Your task to perform on an android device: Toggle the flashlight Image 0: 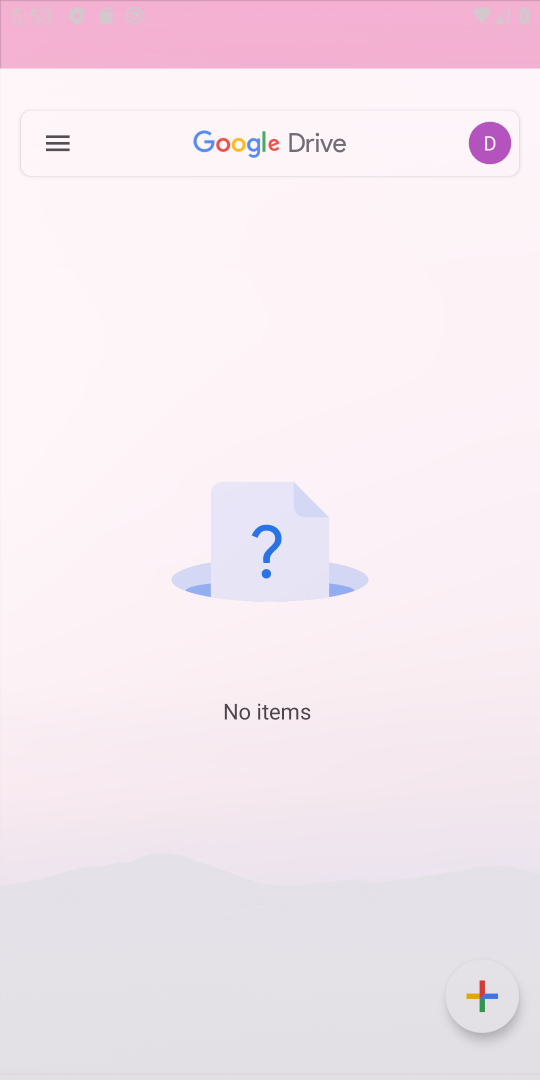
Step 0: press home button
Your task to perform on an android device: Toggle the flashlight Image 1: 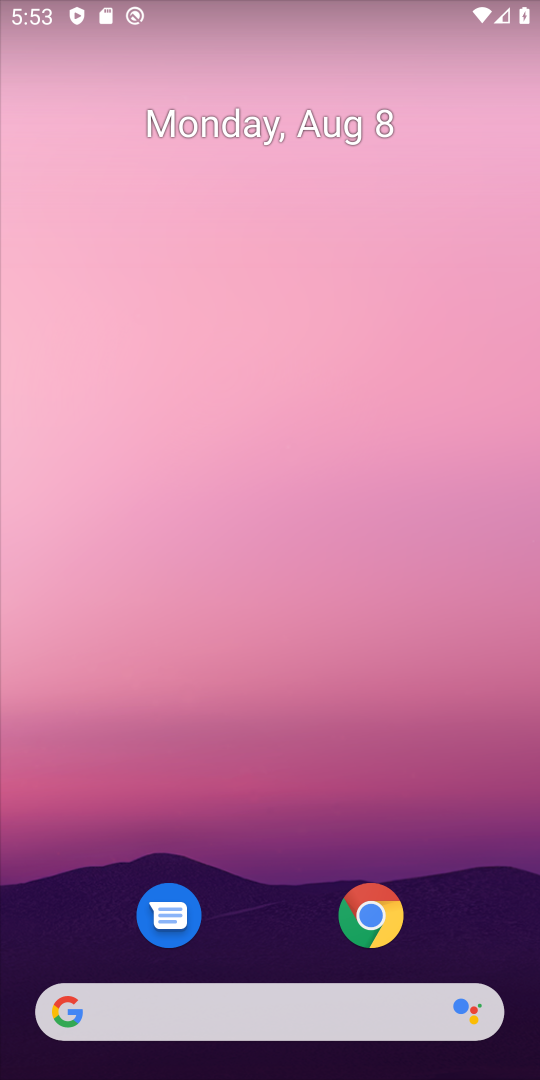
Step 1: drag from (280, 819) to (188, 72)
Your task to perform on an android device: Toggle the flashlight Image 2: 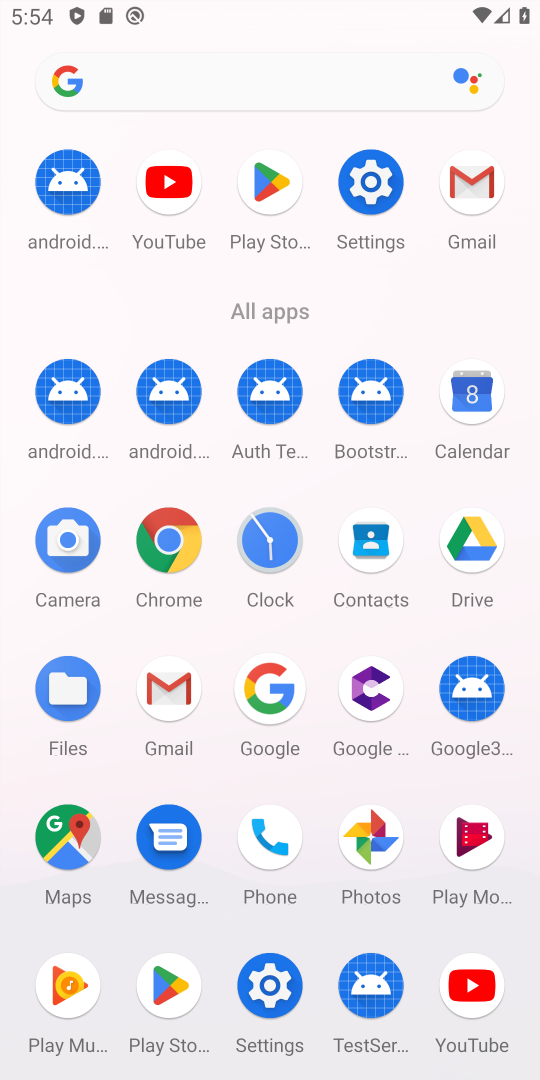
Step 2: click (377, 185)
Your task to perform on an android device: Toggle the flashlight Image 3: 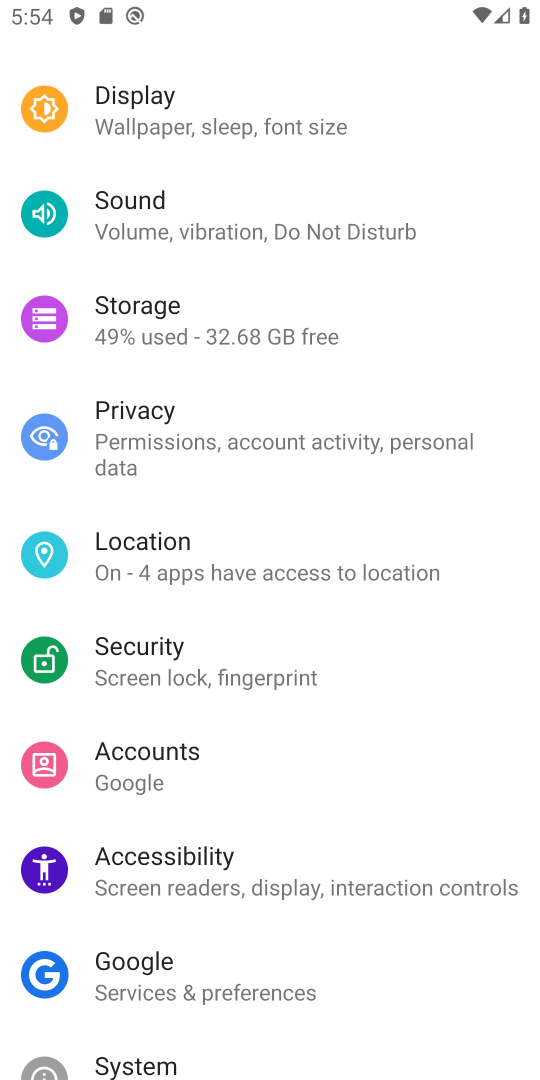
Step 3: drag from (307, 288) to (307, 693)
Your task to perform on an android device: Toggle the flashlight Image 4: 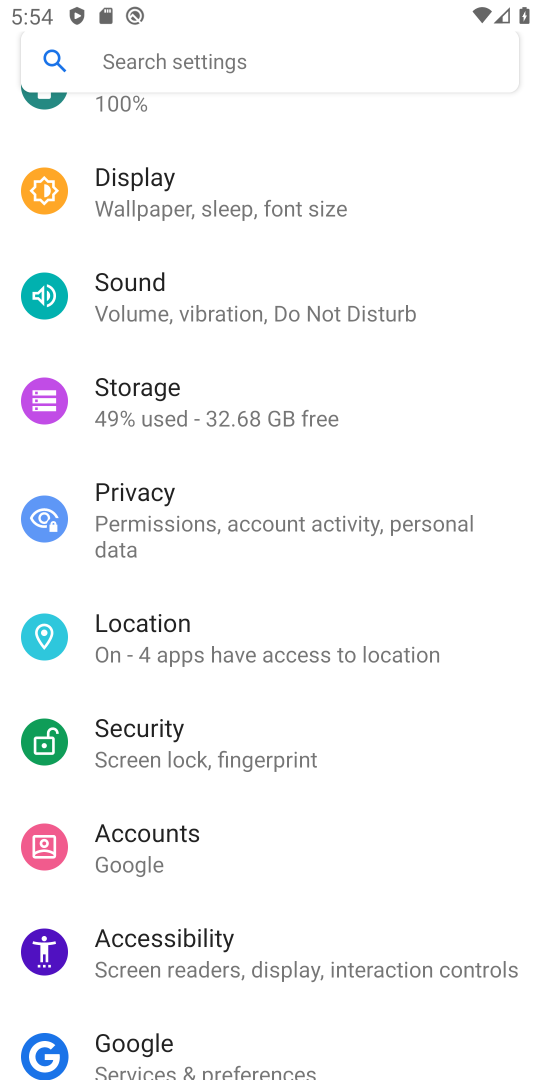
Step 4: click (157, 183)
Your task to perform on an android device: Toggle the flashlight Image 5: 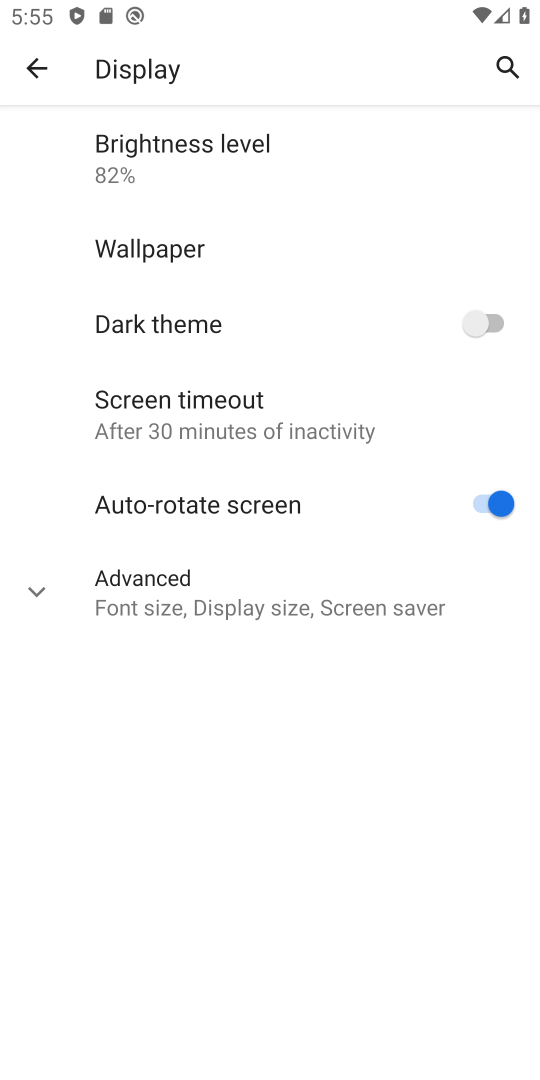
Step 5: task complete